Your task to perform on an android device: Go to display settings Image 0: 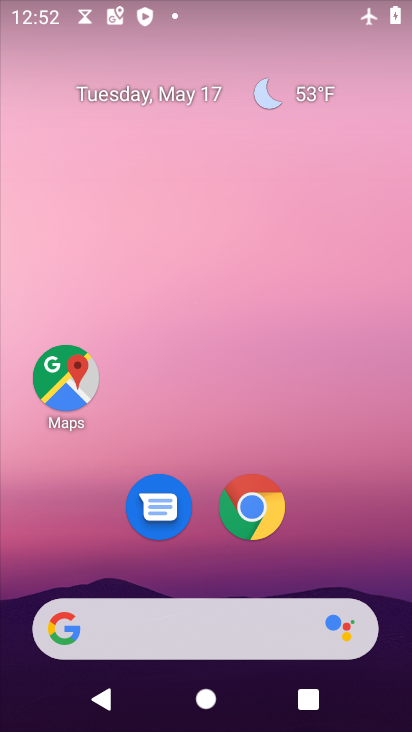
Step 0: drag from (200, 579) to (281, 3)
Your task to perform on an android device: Go to display settings Image 1: 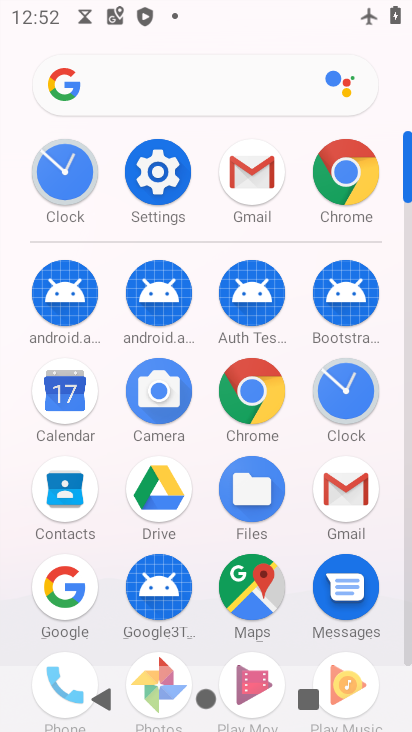
Step 1: click (152, 169)
Your task to perform on an android device: Go to display settings Image 2: 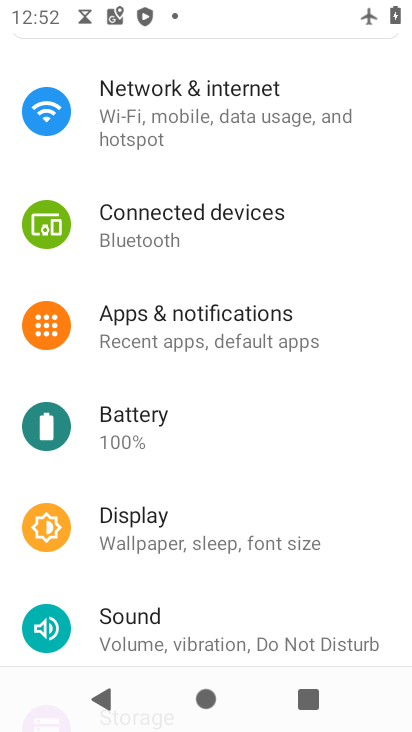
Step 2: click (191, 541)
Your task to perform on an android device: Go to display settings Image 3: 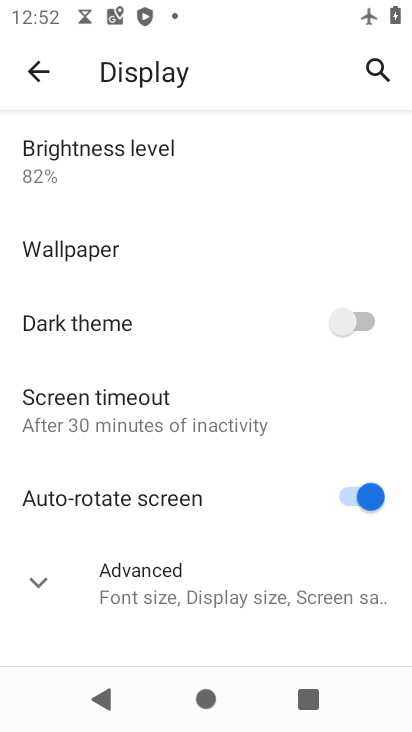
Step 3: task complete